Your task to perform on an android device: What's on my calendar today? Image 0: 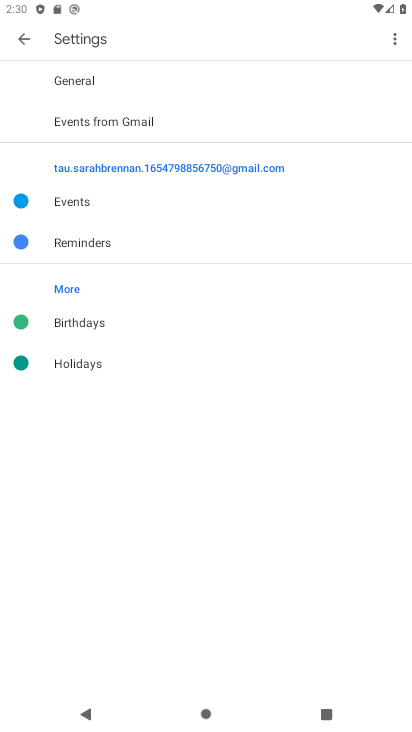
Step 0: press home button
Your task to perform on an android device: What's on my calendar today? Image 1: 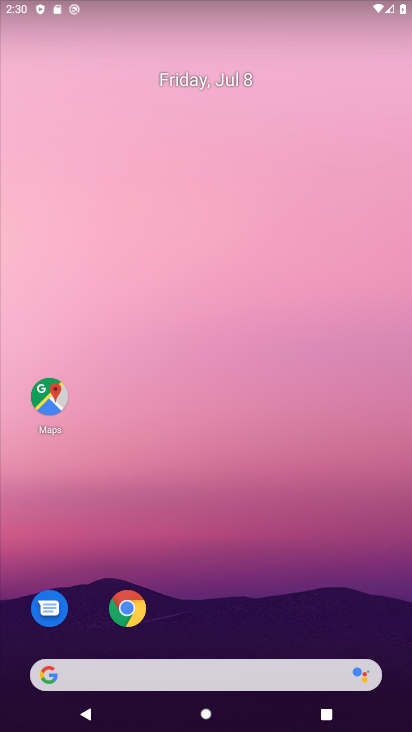
Step 1: drag from (224, 603) to (282, 161)
Your task to perform on an android device: What's on my calendar today? Image 2: 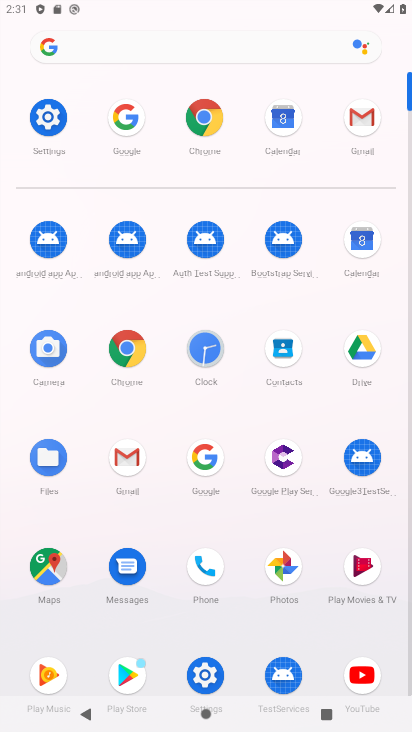
Step 2: click (360, 249)
Your task to perform on an android device: What's on my calendar today? Image 3: 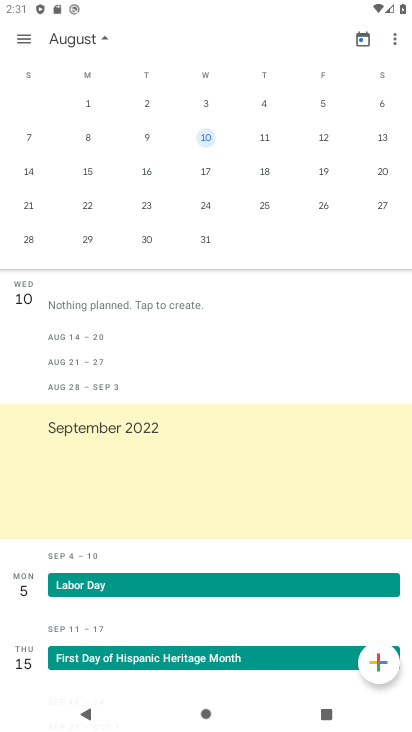
Step 3: drag from (54, 241) to (405, 195)
Your task to perform on an android device: What's on my calendar today? Image 4: 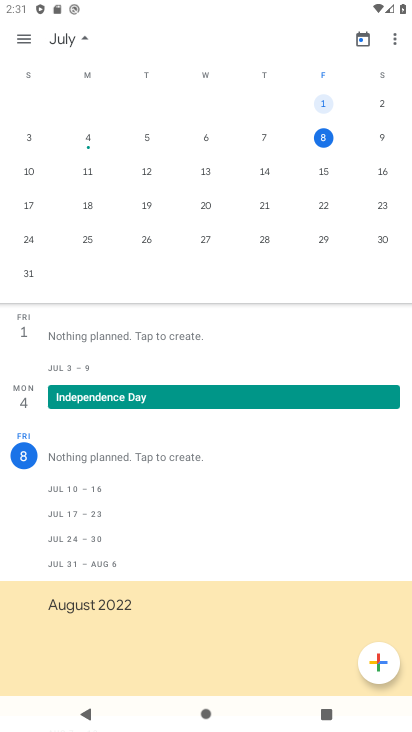
Step 4: click (325, 139)
Your task to perform on an android device: What's on my calendar today? Image 5: 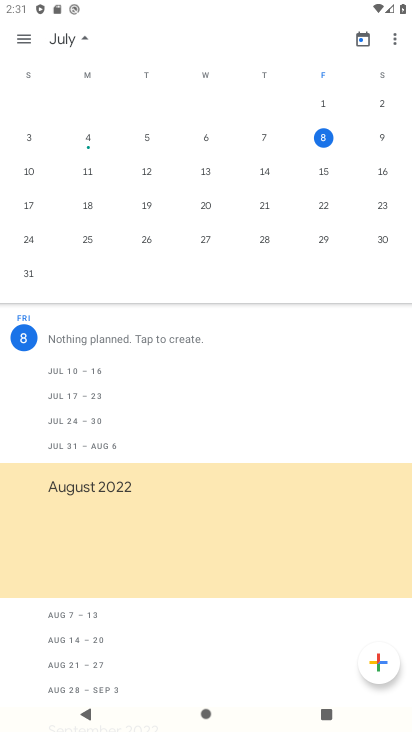
Step 5: task complete